Your task to perform on an android device: Go to Reddit.com Image 0: 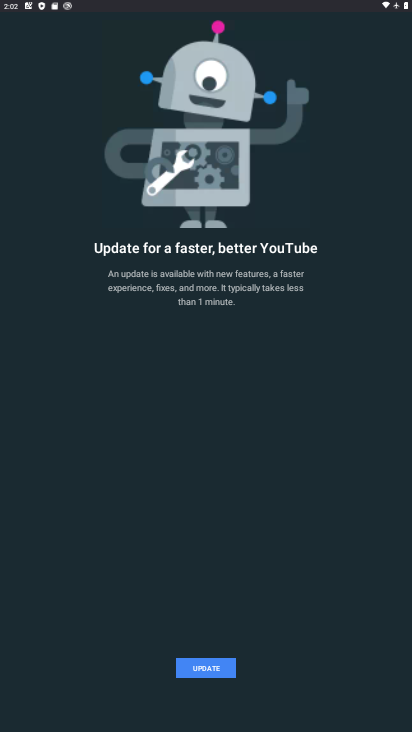
Step 0: press home button
Your task to perform on an android device: Go to Reddit.com Image 1: 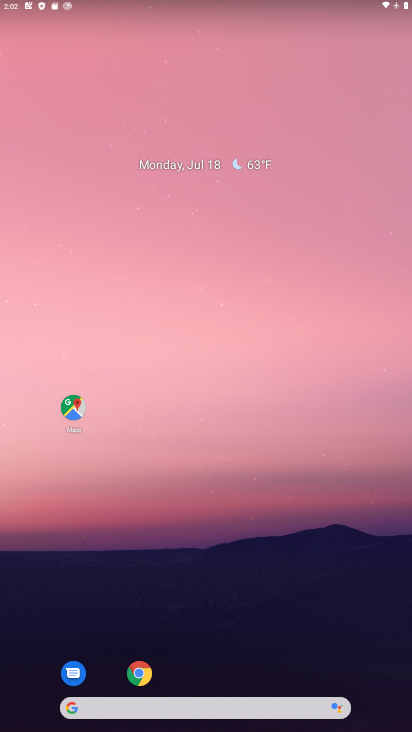
Step 1: click (141, 673)
Your task to perform on an android device: Go to Reddit.com Image 2: 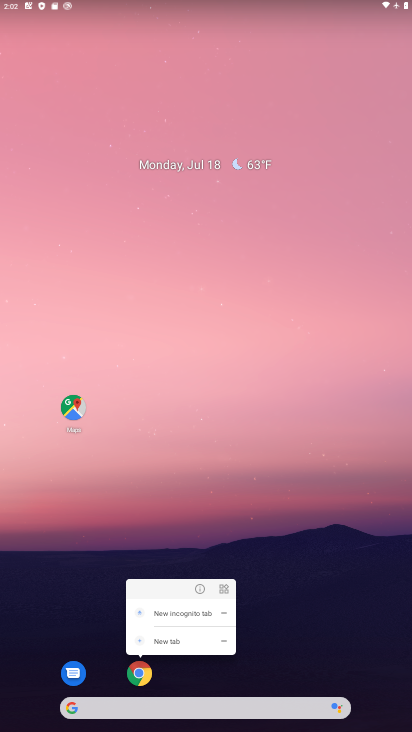
Step 2: click (242, 478)
Your task to perform on an android device: Go to Reddit.com Image 3: 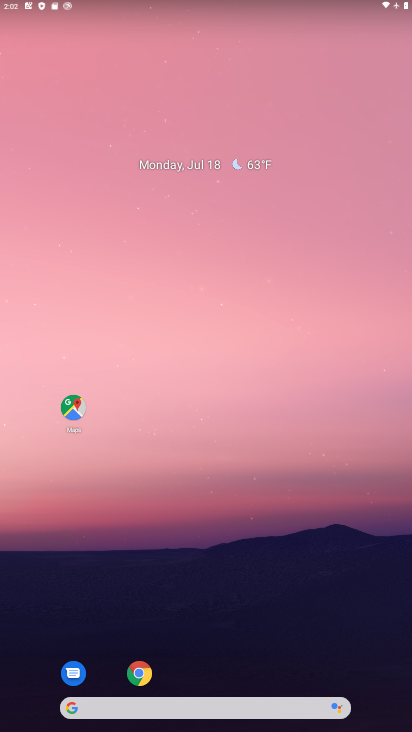
Step 3: drag from (215, 703) to (262, 482)
Your task to perform on an android device: Go to Reddit.com Image 4: 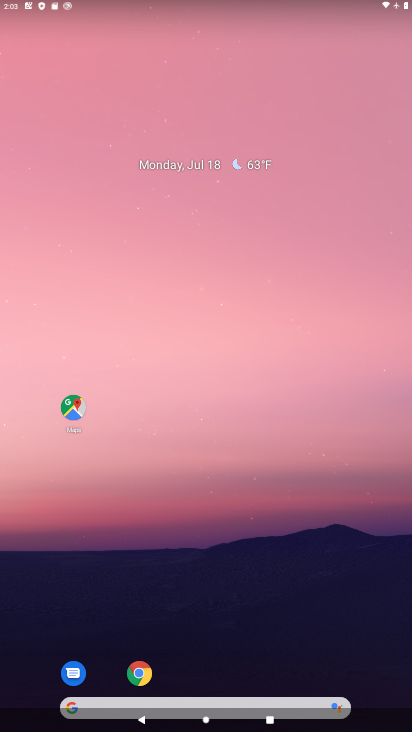
Step 4: drag from (216, 714) to (220, 461)
Your task to perform on an android device: Go to Reddit.com Image 5: 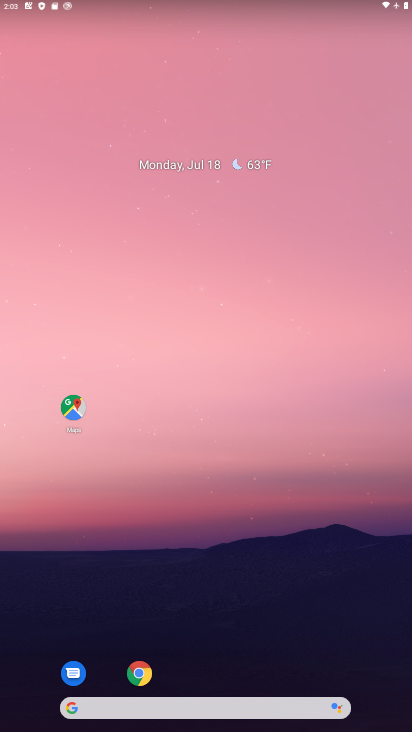
Step 5: drag from (194, 670) to (199, 388)
Your task to perform on an android device: Go to Reddit.com Image 6: 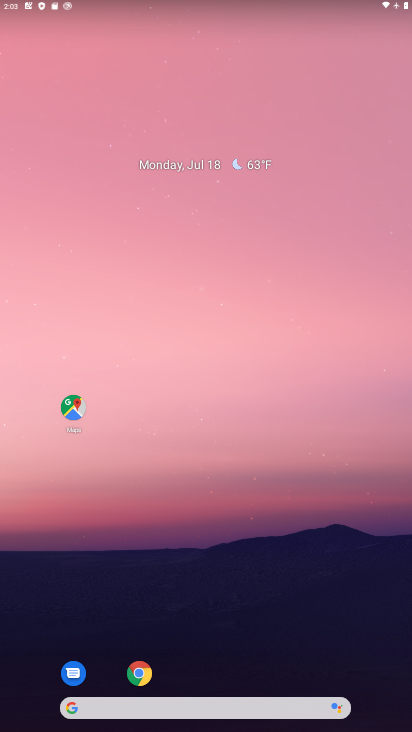
Step 6: drag from (196, 672) to (252, 92)
Your task to perform on an android device: Go to Reddit.com Image 7: 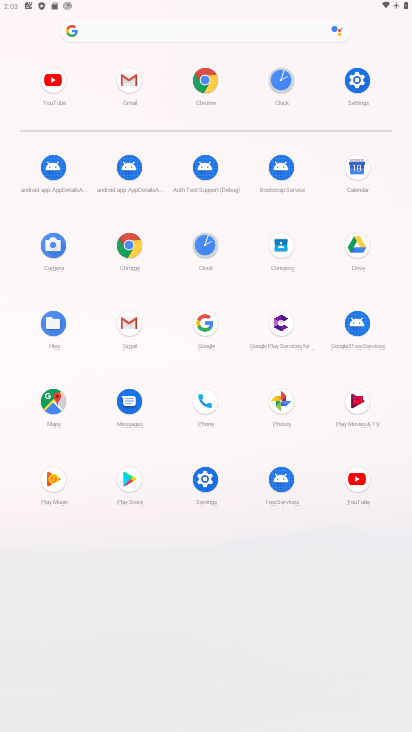
Step 7: click (206, 82)
Your task to perform on an android device: Go to Reddit.com Image 8: 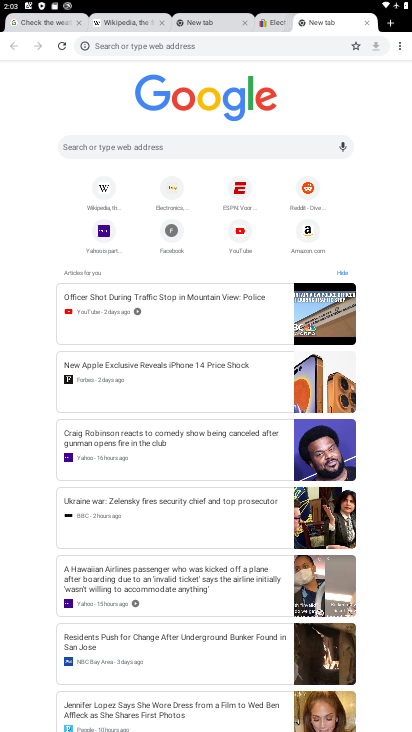
Step 8: click (225, 143)
Your task to perform on an android device: Go to Reddit.com Image 9: 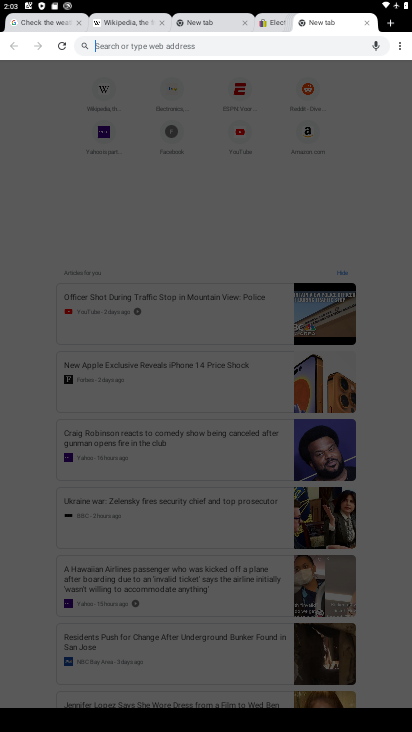
Step 9: type " Reddit.com "
Your task to perform on an android device: Go to Reddit.com Image 10: 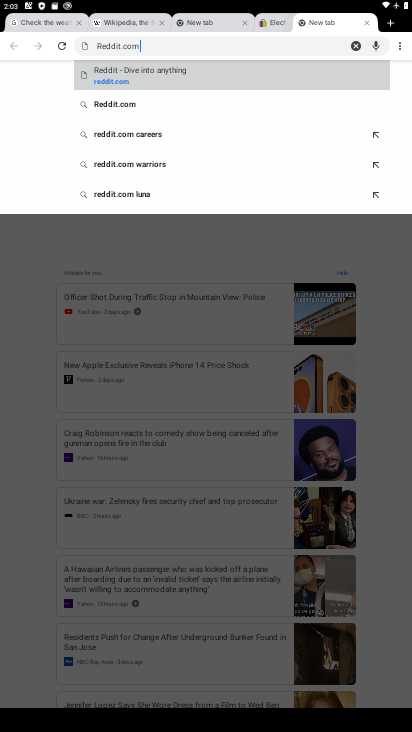
Step 10: click (105, 103)
Your task to perform on an android device: Go to Reddit.com Image 11: 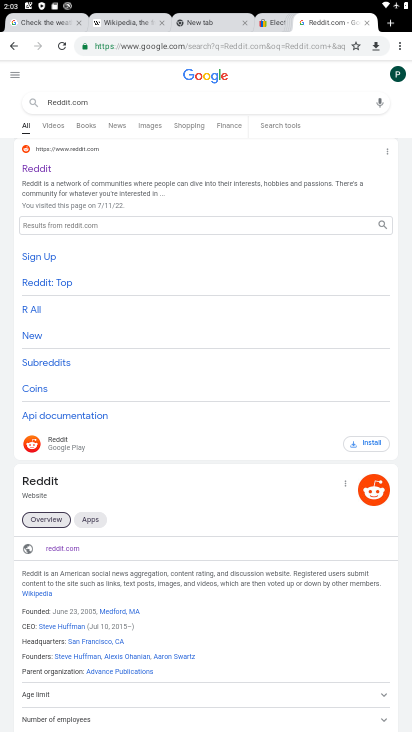
Step 11: task complete